Your task to perform on an android device: Play the last video I watched on Youtube Image 0: 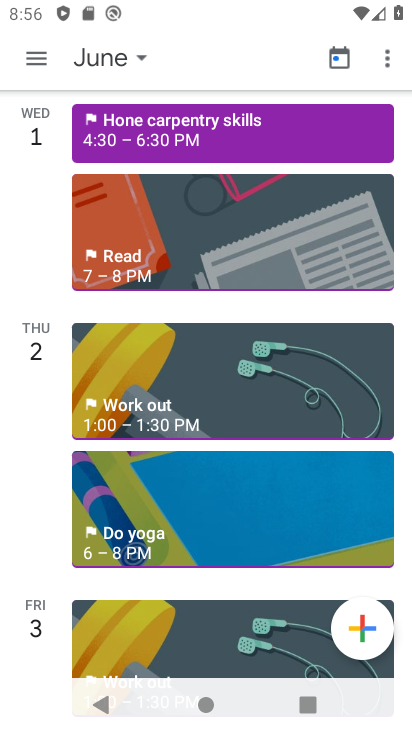
Step 0: press home button
Your task to perform on an android device: Play the last video I watched on Youtube Image 1: 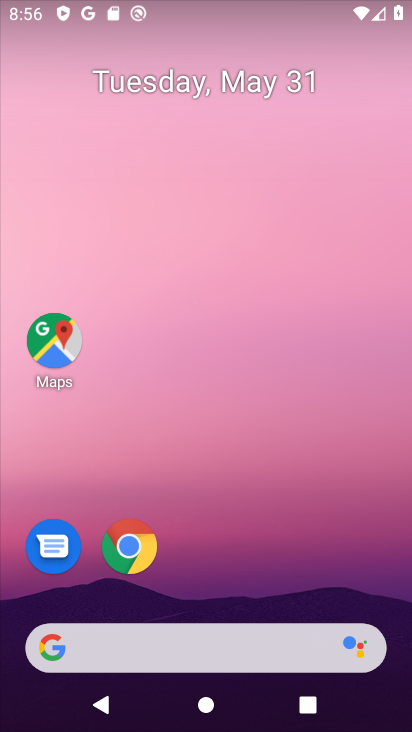
Step 1: drag from (396, 682) to (286, 72)
Your task to perform on an android device: Play the last video I watched on Youtube Image 2: 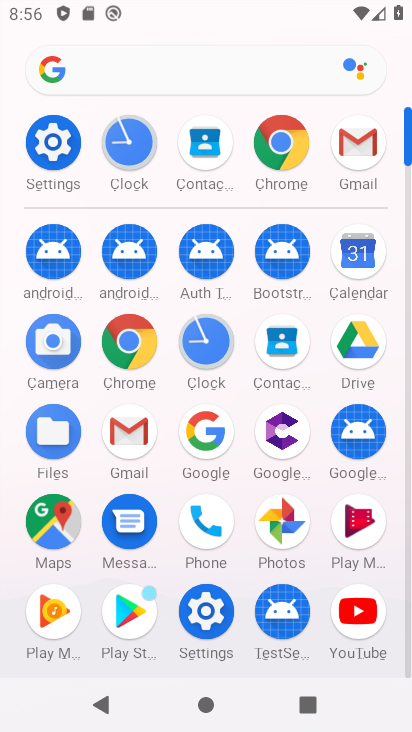
Step 2: click (352, 620)
Your task to perform on an android device: Play the last video I watched on Youtube Image 3: 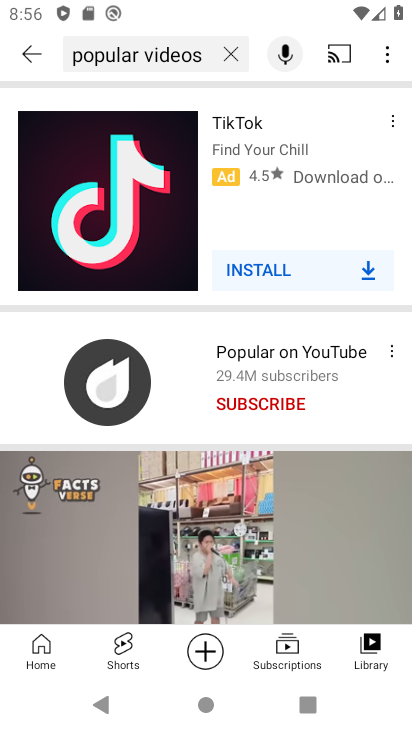
Step 3: drag from (206, 579) to (216, 192)
Your task to perform on an android device: Play the last video I watched on Youtube Image 4: 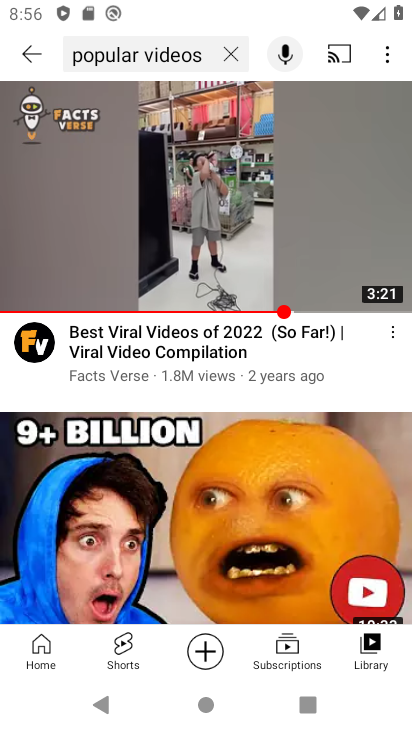
Step 4: drag from (217, 563) to (236, 228)
Your task to perform on an android device: Play the last video I watched on Youtube Image 5: 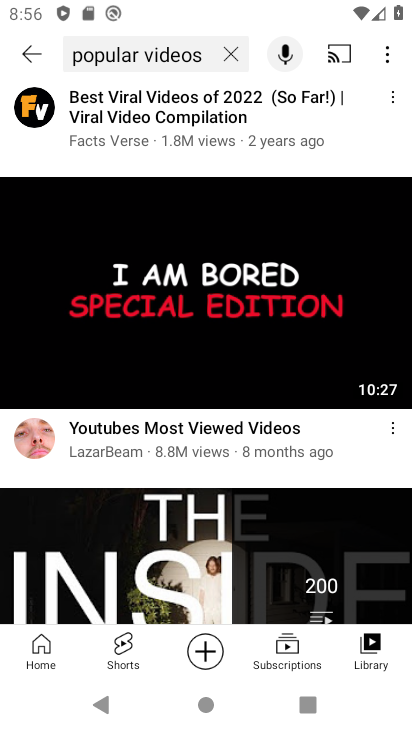
Step 5: click (376, 644)
Your task to perform on an android device: Play the last video I watched on Youtube Image 6: 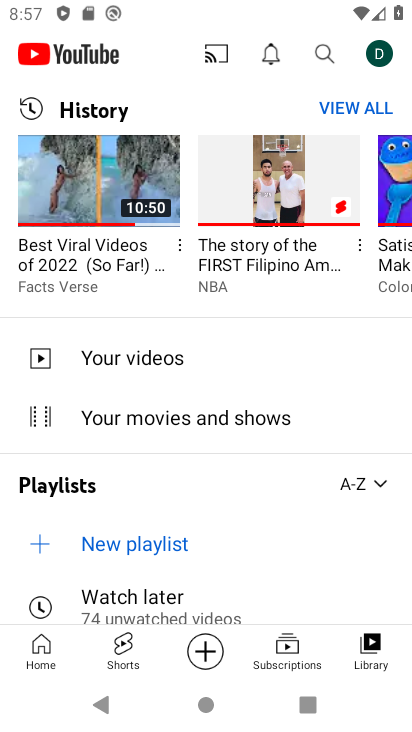
Step 6: click (55, 183)
Your task to perform on an android device: Play the last video I watched on Youtube Image 7: 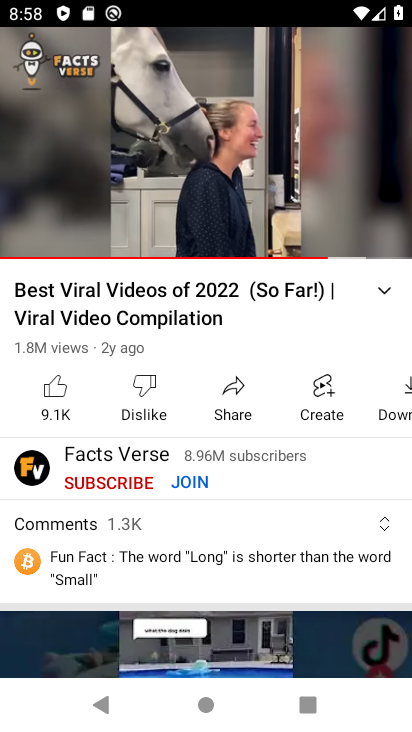
Step 7: task complete